Your task to perform on an android device: Open location settings Image 0: 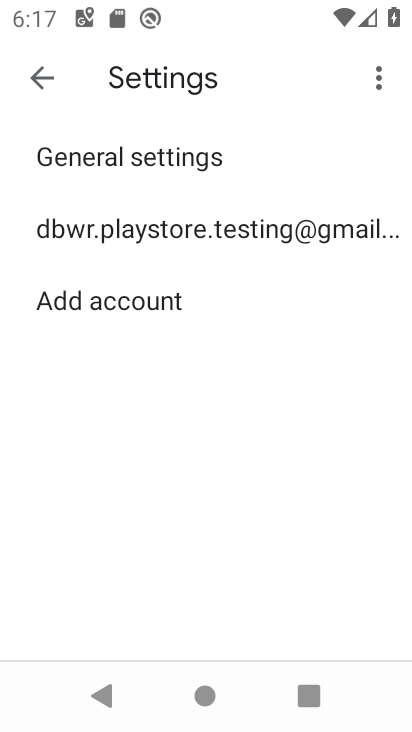
Step 0: press home button
Your task to perform on an android device: Open location settings Image 1: 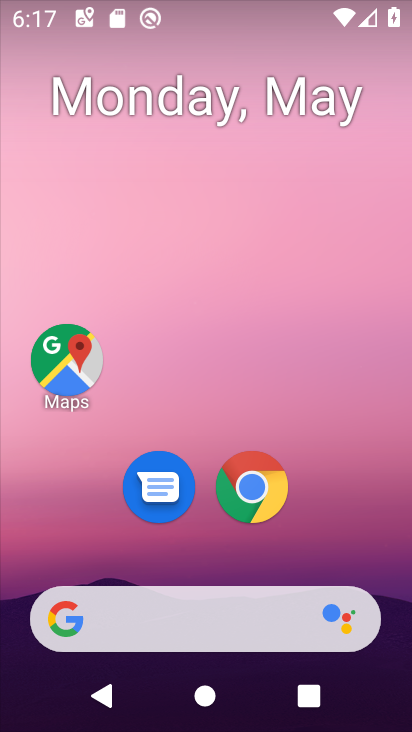
Step 1: drag from (214, 560) to (247, 105)
Your task to perform on an android device: Open location settings Image 2: 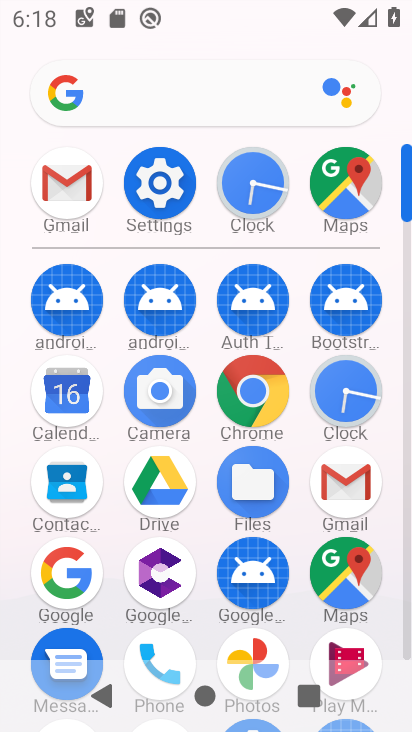
Step 2: click (156, 184)
Your task to perform on an android device: Open location settings Image 3: 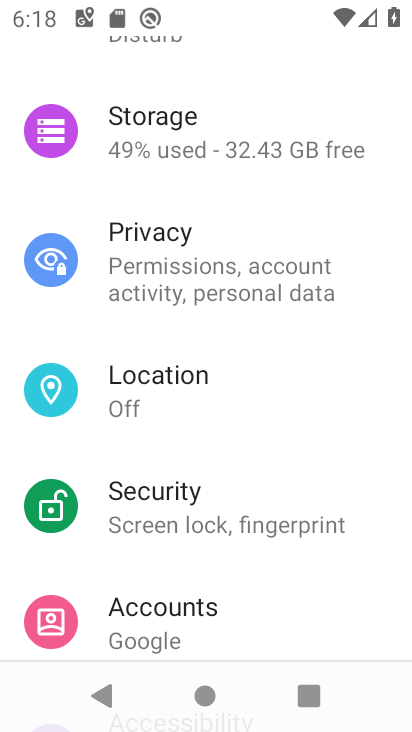
Step 3: drag from (228, 617) to (247, 437)
Your task to perform on an android device: Open location settings Image 4: 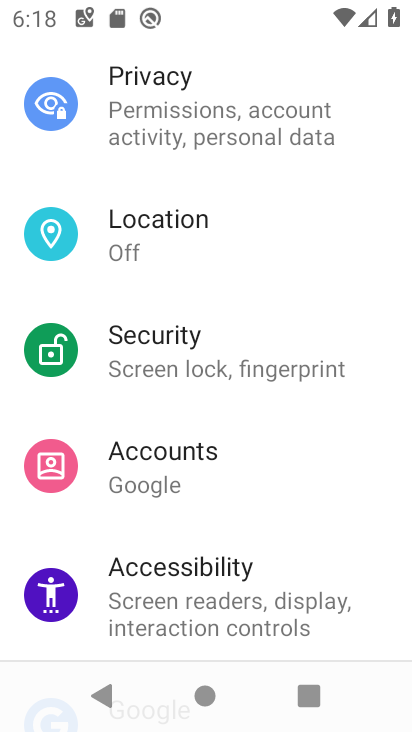
Step 4: click (175, 230)
Your task to perform on an android device: Open location settings Image 5: 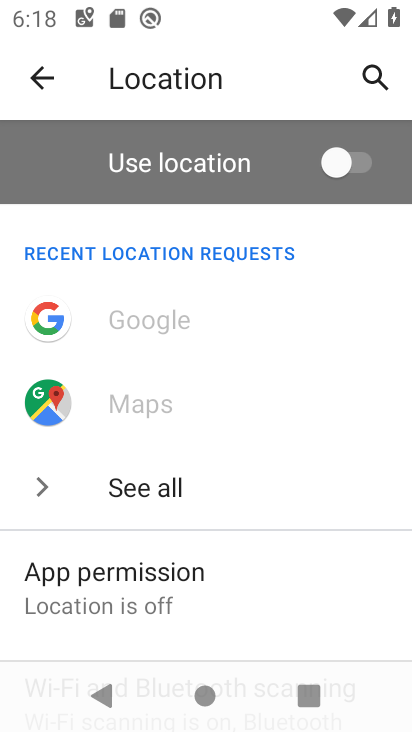
Step 5: drag from (198, 553) to (201, 221)
Your task to perform on an android device: Open location settings Image 6: 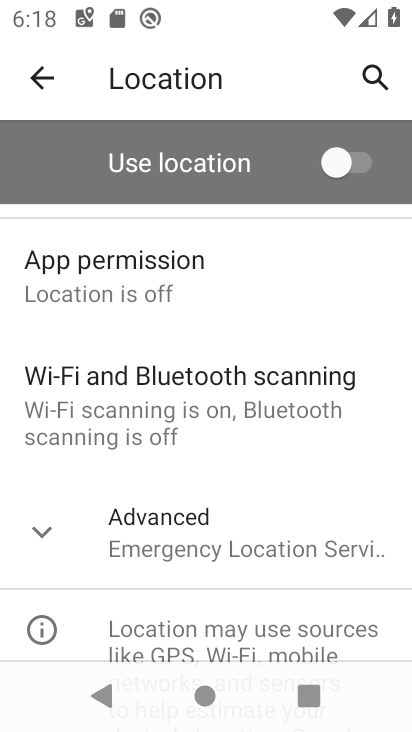
Step 6: click (42, 530)
Your task to perform on an android device: Open location settings Image 7: 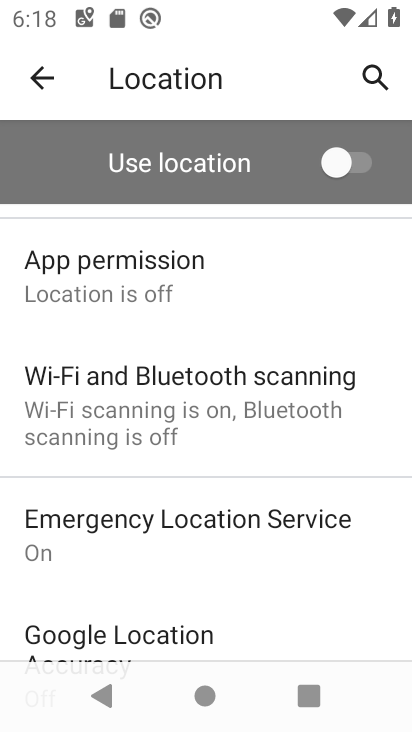
Step 7: task complete